Your task to perform on an android device: Search for Italian restaurants on Maps Image 0: 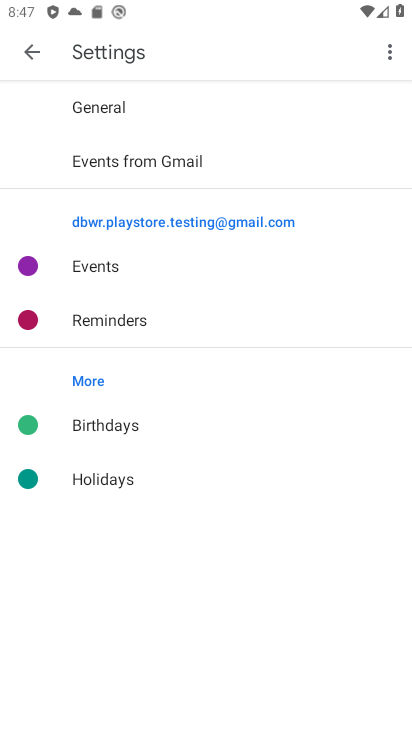
Step 0: press home button
Your task to perform on an android device: Search for Italian restaurants on Maps Image 1: 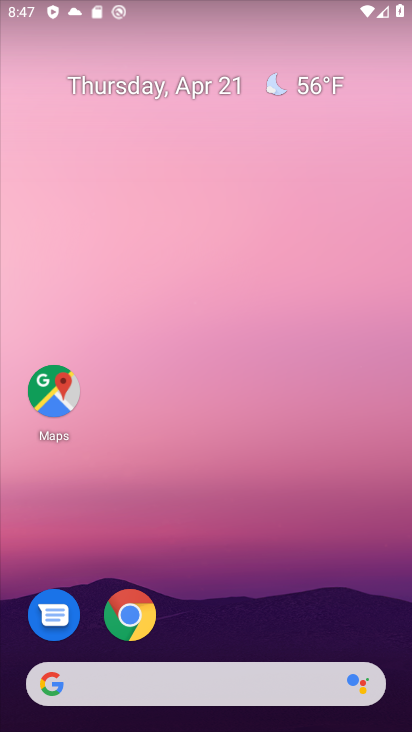
Step 1: click (21, 374)
Your task to perform on an android device: Search for Italian restaurants on Maps Image 2: 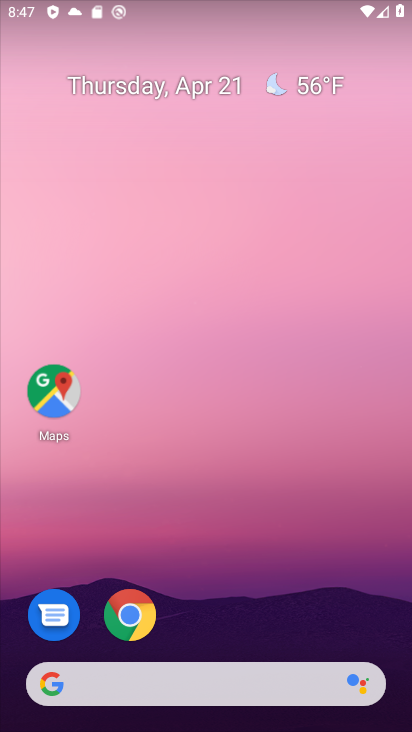
Step 2: click (64, 399)
Your task to perform on an android device: Search for Italian restaurants on Maps Image 3: 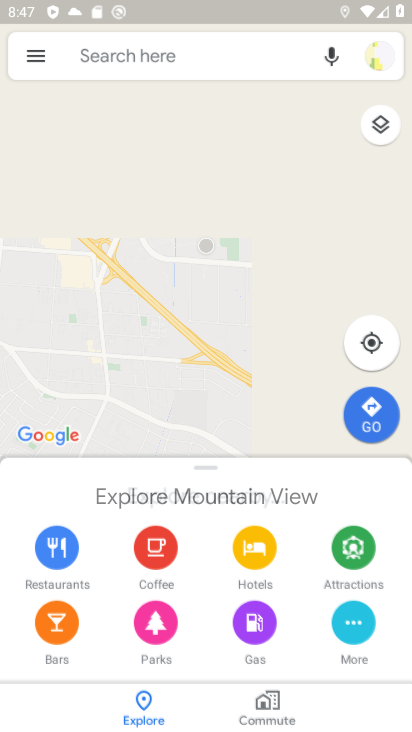
Step 3: click (153, 69)
Your task to perform on an android device: Search for Italian restaurants on Maps Image 4: 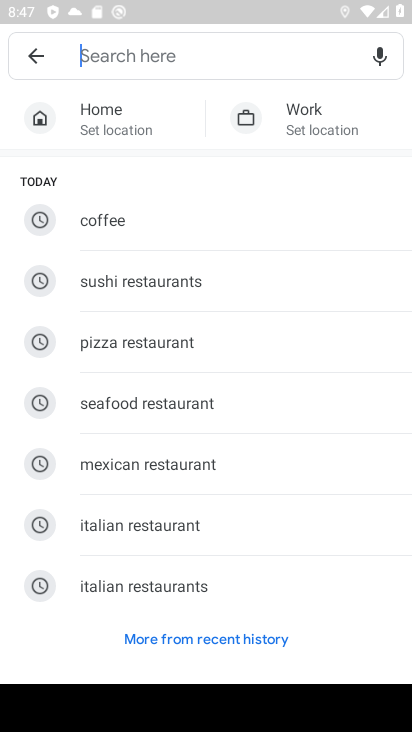
Step 4: click (133, 530)
Your task to perform on an android device: Search for Italian restaurants on Maps Image 5: 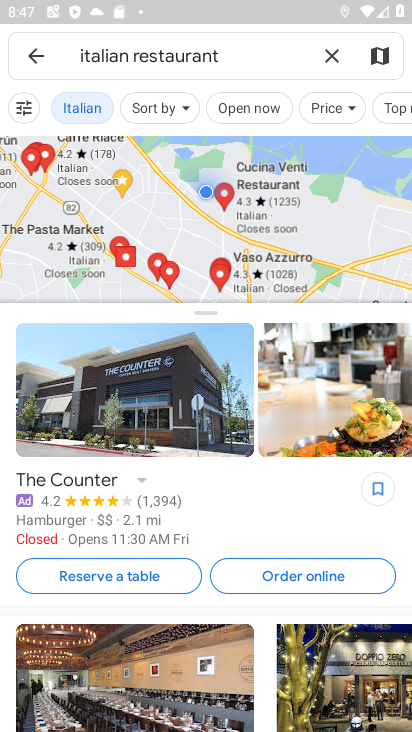
Step 5: task complete